Your task to perform on an android device: Go to accessibility settings Image 0: 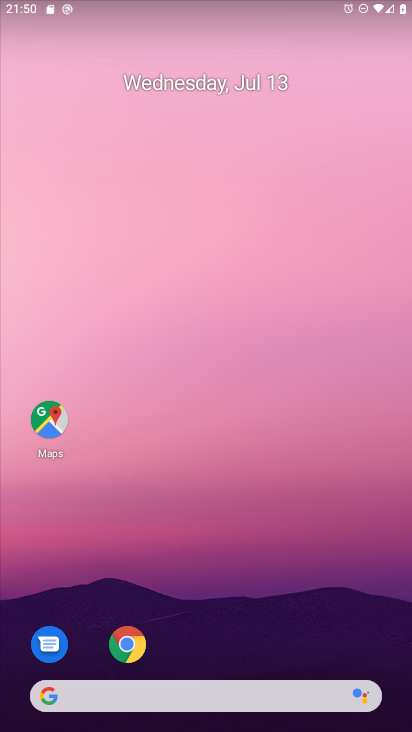
Step 0: press home button
Your task to perform on an android device: Go to accessibility settings Image 1: 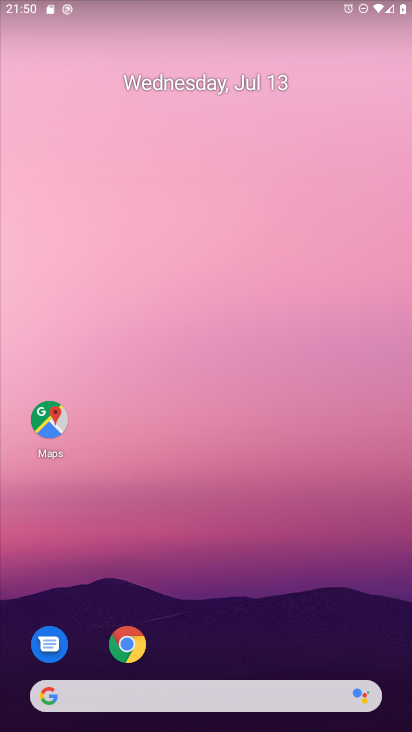
Step 1: drag from (247, 641) to (262, 178)
Your task to perform on an android device: Go to accessibility settings Image 2: 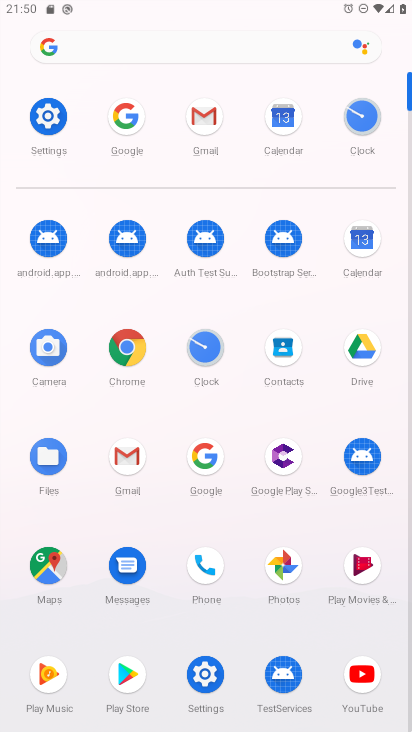
Step 2: click (46, 125)
Your task to perform on an android device: Go to accessibility settings Image 3: 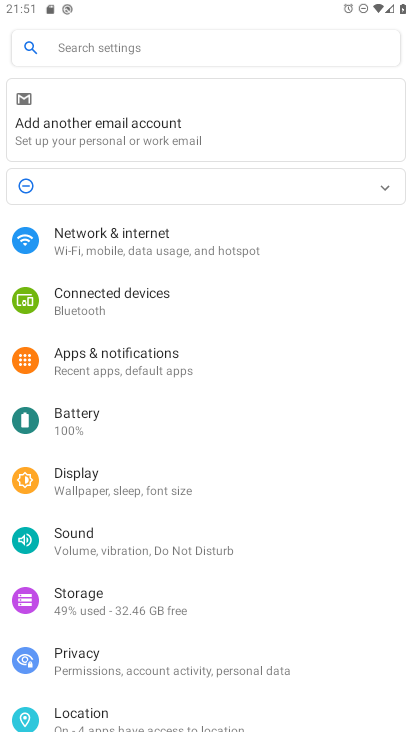
Step 3: drag from (235, 617) to (258, 296)
Your task to perform on an android device: Go to accessibility settings Image 4: 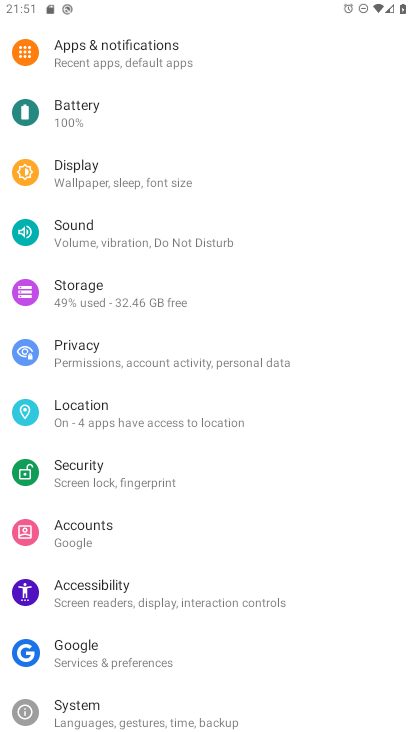
Step 4: click (147, 592)
Your task to perform on an android device: Go to accessibility settings Image 5: 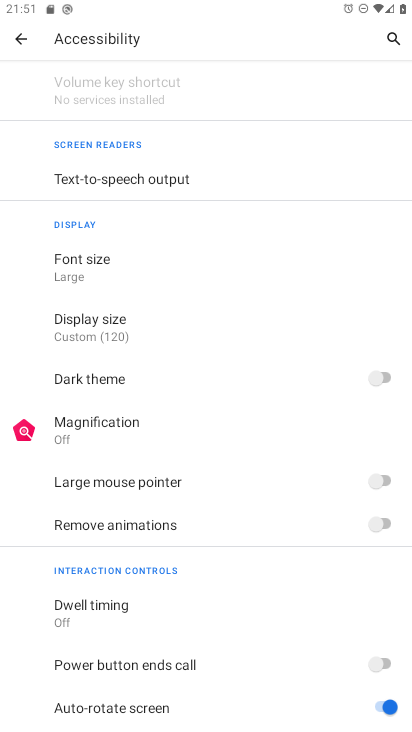
Step 5: task complete